Your task to perform on an android device: turn notification dots off Image 0: 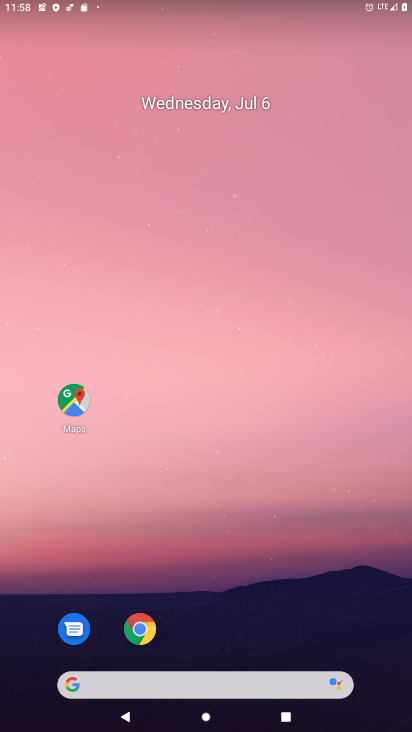
Step 0: drag from (244, 603) to (230, 262)
Your task to perform on an android device: turn notification dots off Image 1: 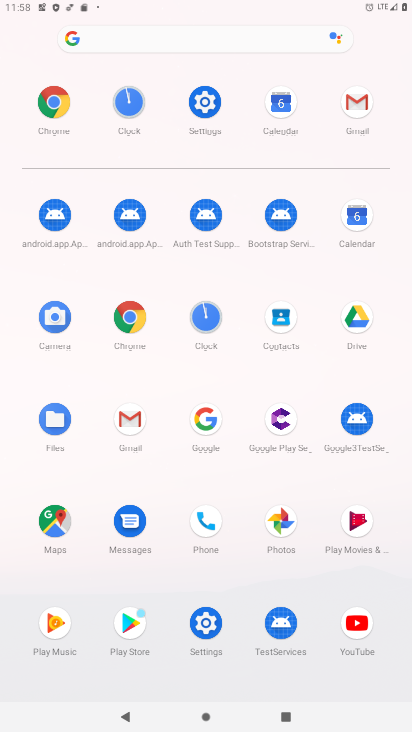
Step 1: click (205, 102)
Your task to perform on an android device: turn notification dots off Image 2: 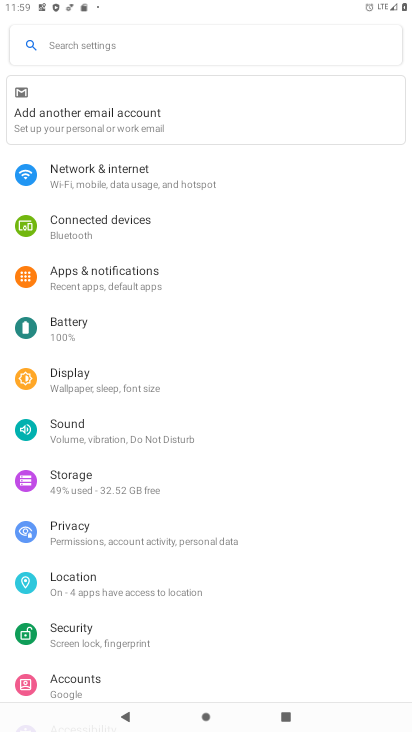
Step 2: click (121, 281)
Your task to perform on an android device: turn notification dots off Image 3: 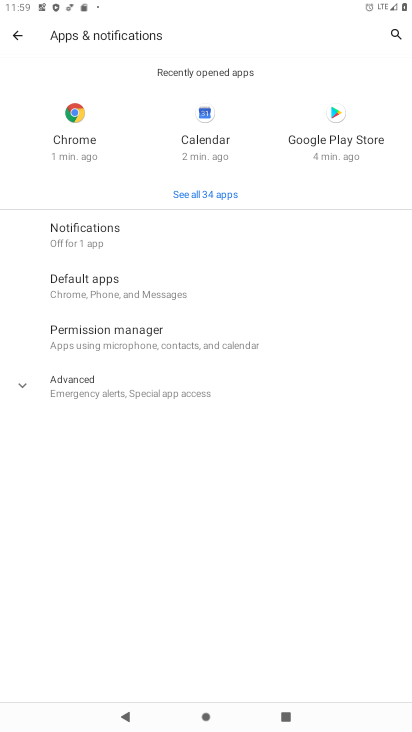
Step 3: click (105, 241)
Your task to perform on an android device: turn notification dots off Image 4: 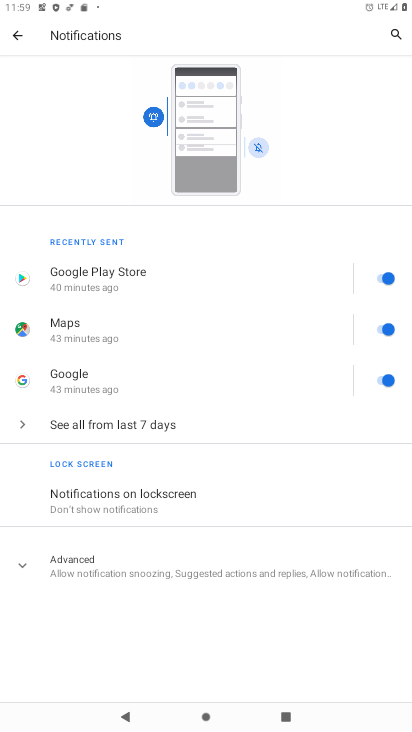
Step 4: click (161, 574)
Your task to perform on an android device: turn notification dots off Image 5: 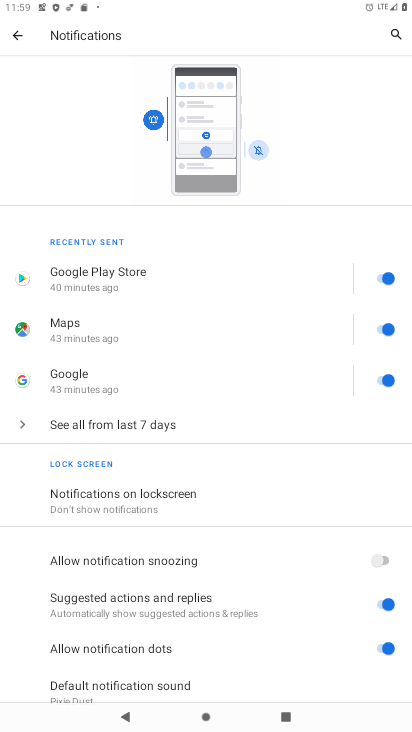
Step 5: drag from (130, 574) to (225, 460)
Your task to perform on an android device: turn notification dots off Image 6: 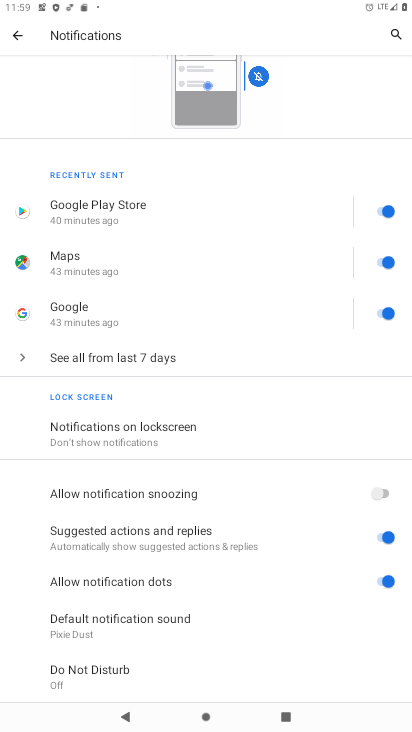
Step 6: click (388, 574)
Your task to perform on an android device: turn notification dots off Image 7: 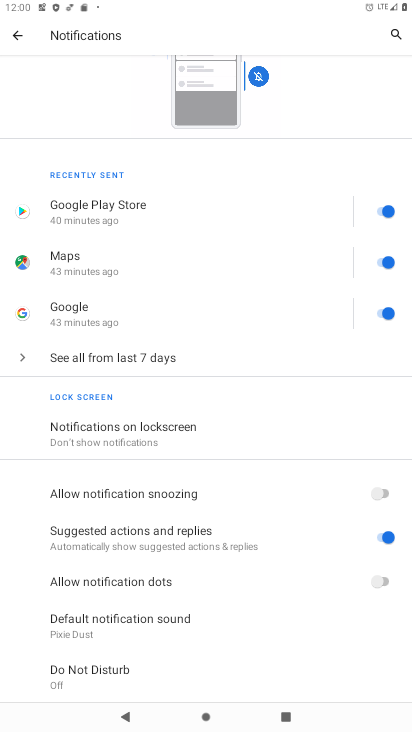
Step 7: task complete